Your task to perform on an android device: Show me popular videos on Youtube Image 0: 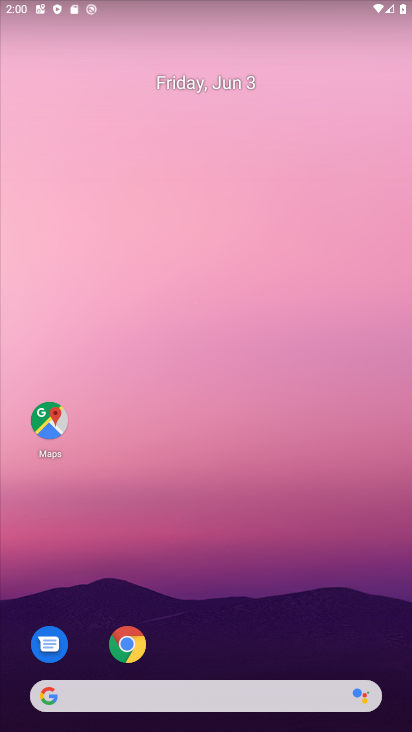
Step 0: drag from (226, 640) to (226, 180)
Your task to perform on an android device: Show me popular videos on Youtube Image 1: 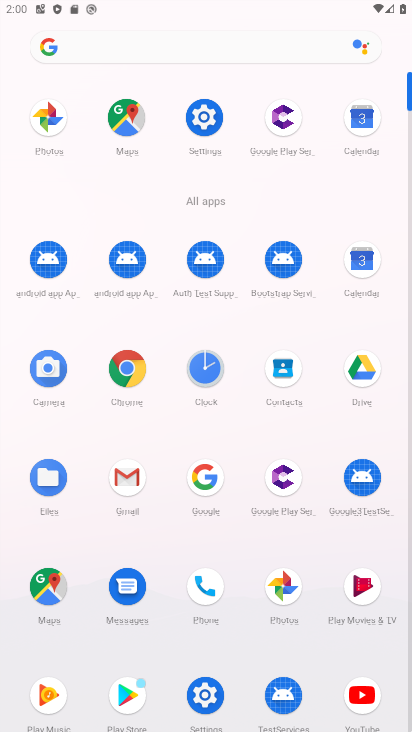
Step 1: click (359, 682)
Your task to perform on an android device: Show me popular videos on Youtube Image 2: 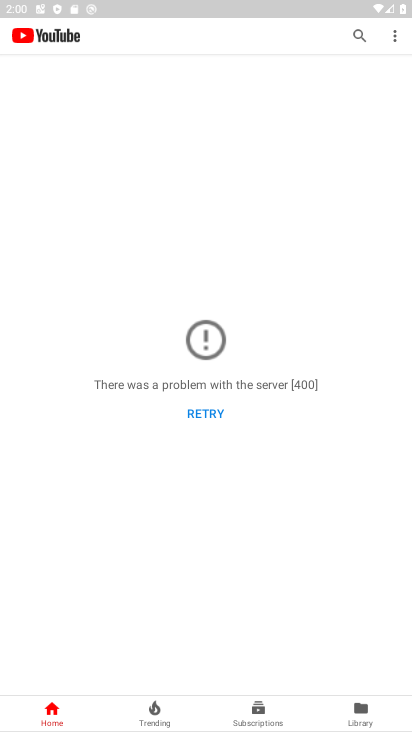
Step 2: click (360, 37)
Your task to perform on an android device: Show me popular videos on Youtube Image 3: 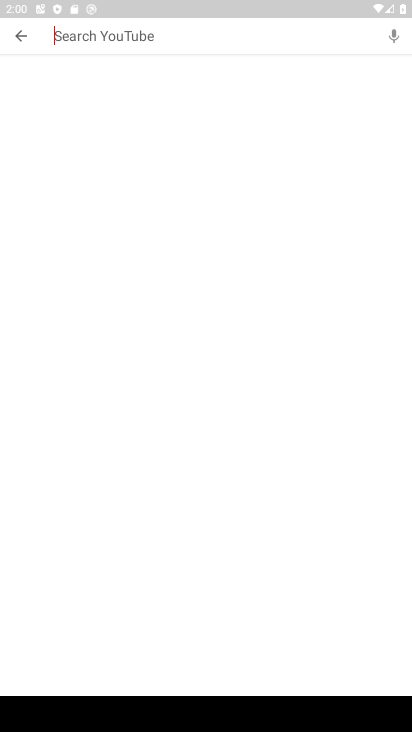
Step 3: click (158, 41)
Your task to perform on an android device: Show me popular videos on Youtube Image 4: 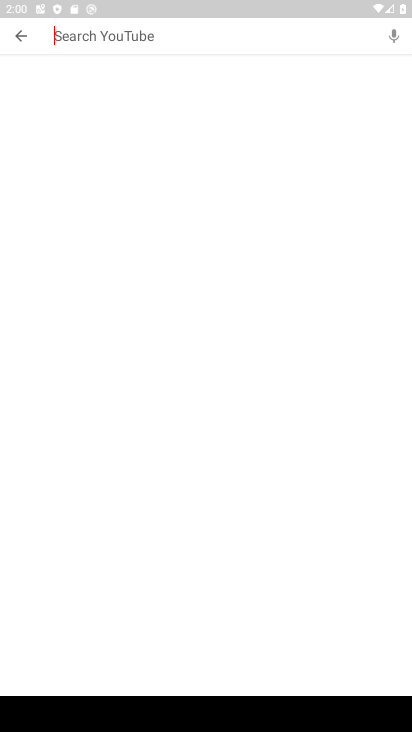
Step 4: type "popular videos"
Your task to perform on an android device: Show me popular videos on Youtube Image 5: 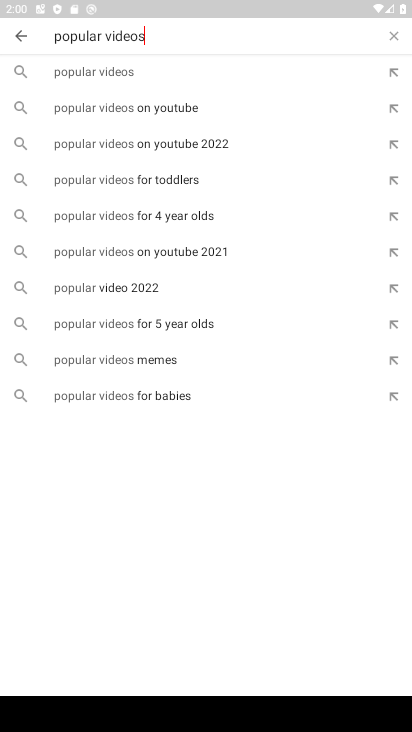
Step 5: click (125, 69)
Your task to perform on an android device: Show me popular videos on Youtube Image 6: 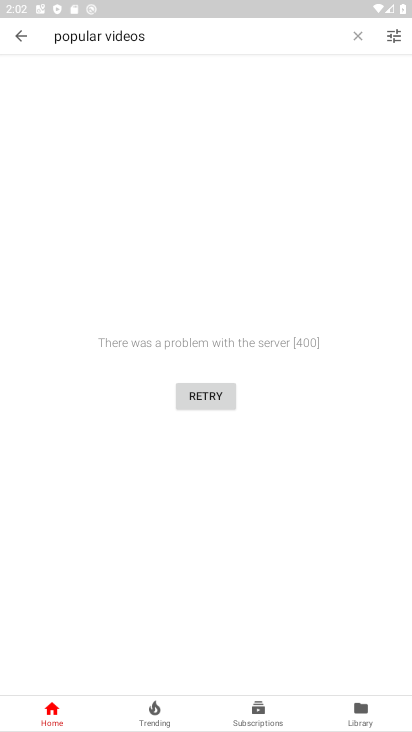
Step 6: click (254, 38)
Your task to perform on an android device: Show me popular videos on Youtube Image 7: 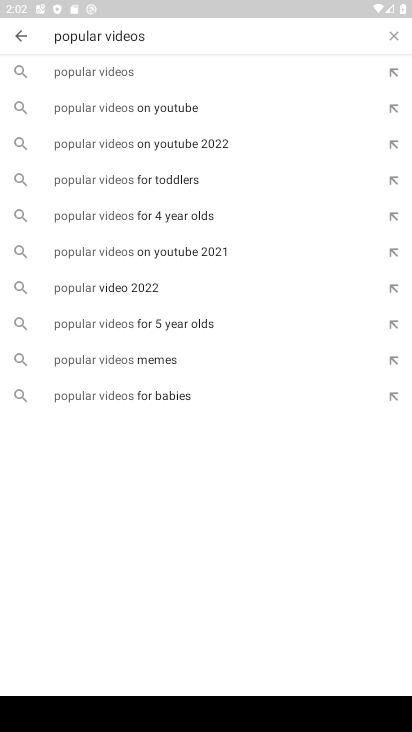
Step 7: click (157, 70)
Your task to perform on an android device: Show me popular videos on Youtube Image 8: 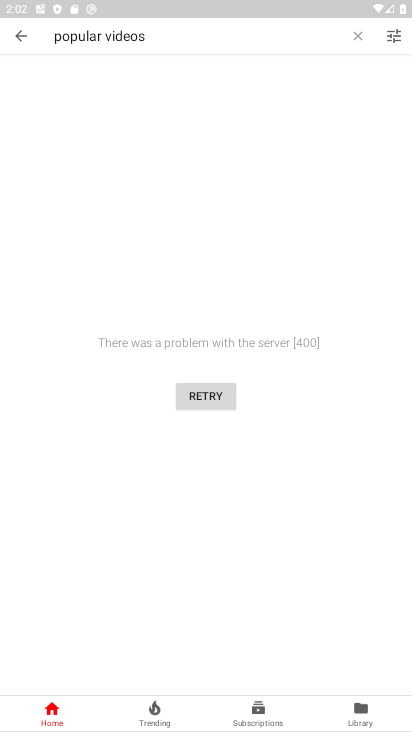
Step 8: task complete